Your task to perform on an android device: Show me popular games on the Play Store Image 0: 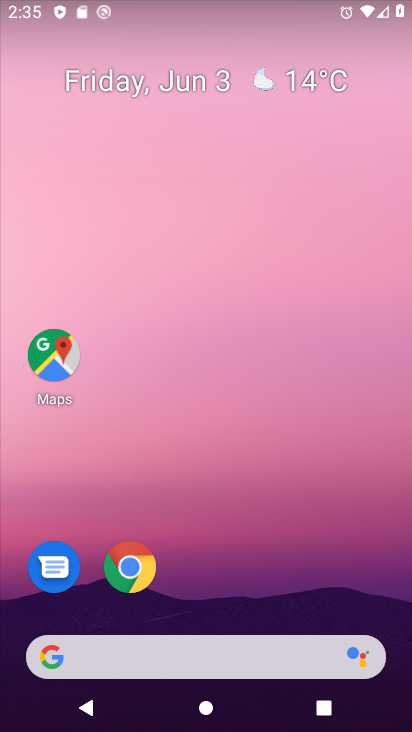
Step 0: drag from (270, 676) to (169, 193)
Your task to perform on an android device: Show me popular games on the Play Store Image 1: 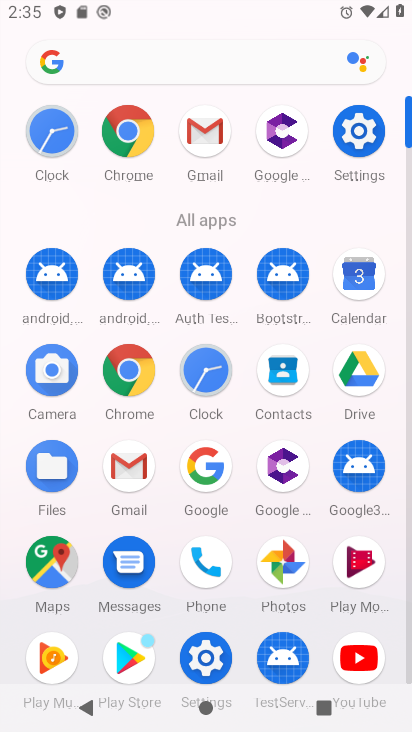
Step 1: click (145, 644)
Your task to perform on an android device: Show me popular games on the Play Store Image 2: 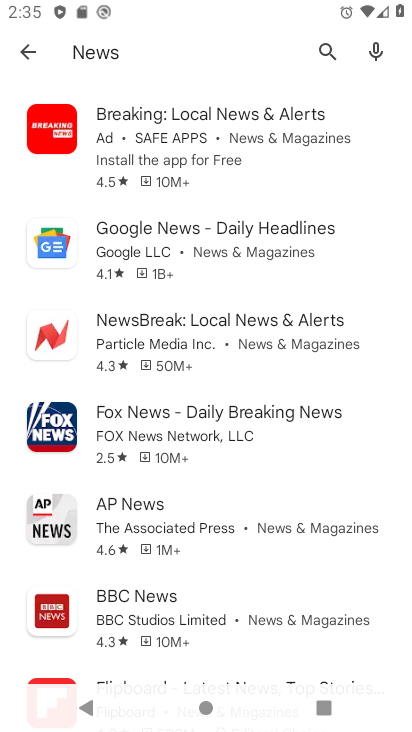
Step 2: click (309, 32)
Your task to perform on an android device: Show me popular games on the Play Store Image 3: 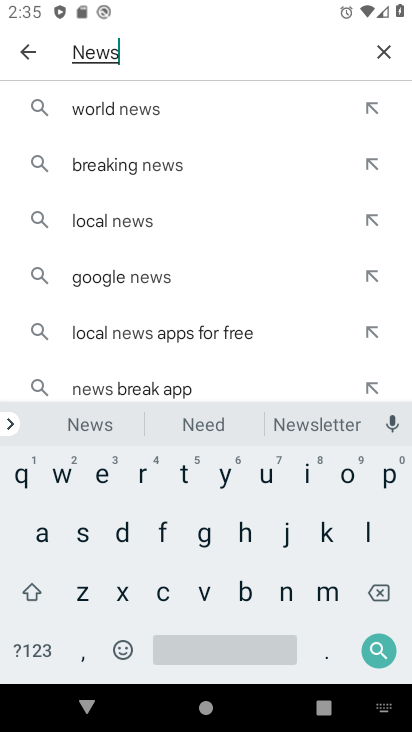
Step 3: click (388, 50)
Your task to perform on an android device: Show me popular games on the Play Store Image 4: 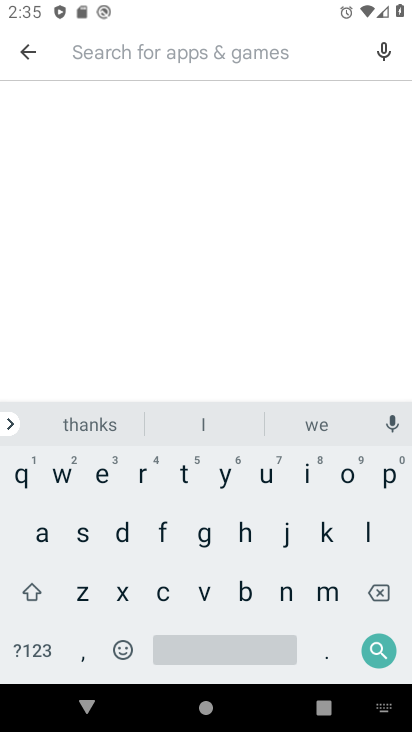
Step 4: click (387, 473)
Your task to perform on an android device: Show me popular games on the Play Store Image 5: 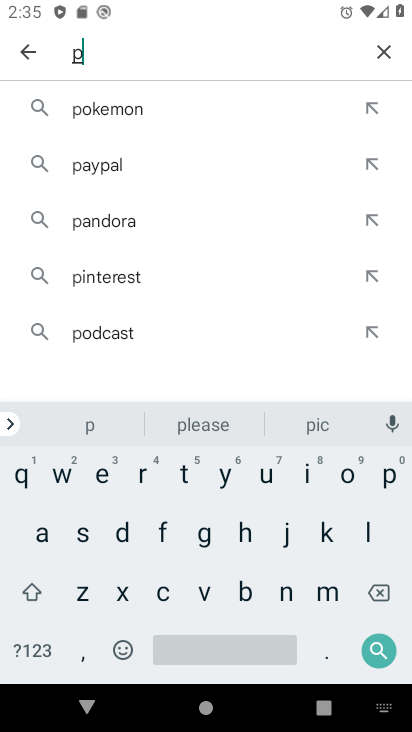
Step 5: click (349, 471)
Your task to perform on an android device: Show me popular games on the Play Store Image 6: 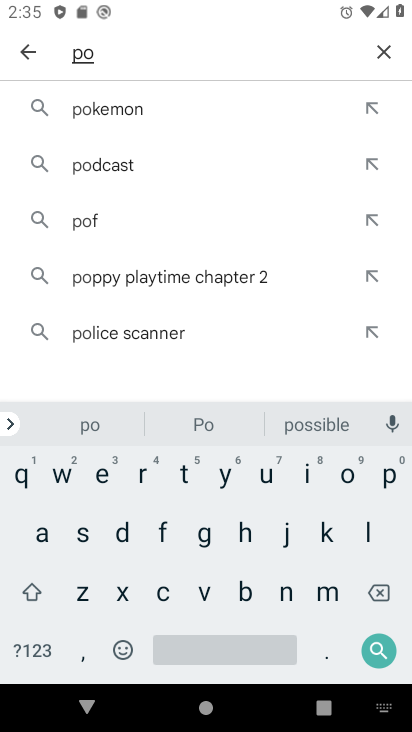
Step 6: click (385, 478)
Your task to perform on an android device: Show me popular games on the Play Store Image 7: 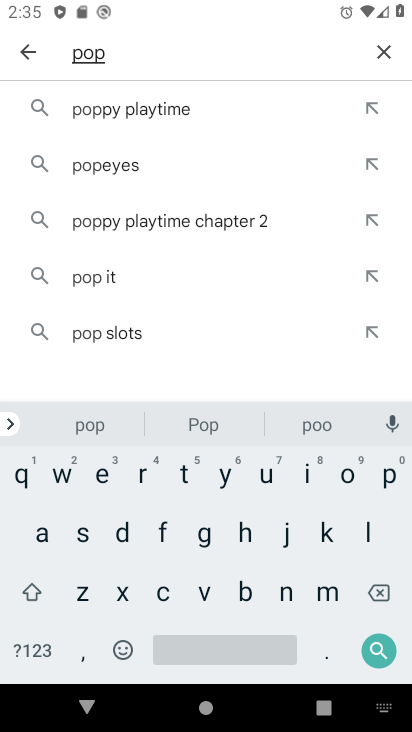
Step 7: click (268, 486)
Your task to perform on an android device: Show me popular games on the Play Store Image 8: 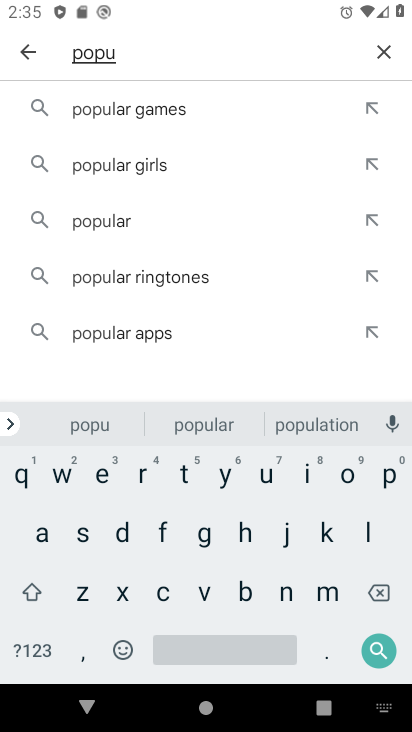
Step 8: click (151, 104)
Your task to perform on an android device: Show me popular games on the Play Store Image 9: 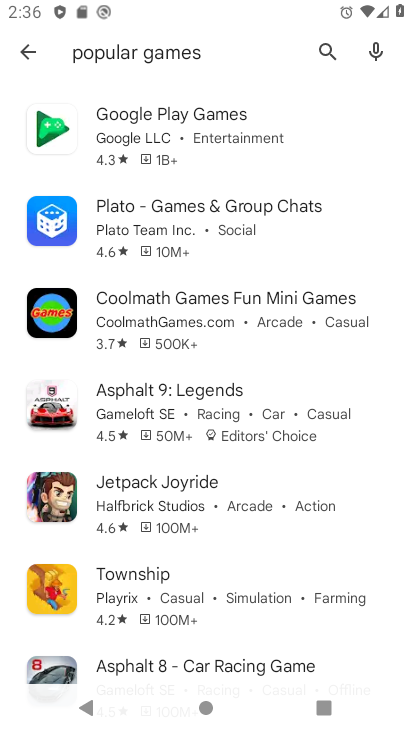
Step 9: task complete